Your task to perform on an android device: Open calendar and show me the fourth week of next month Image 0: 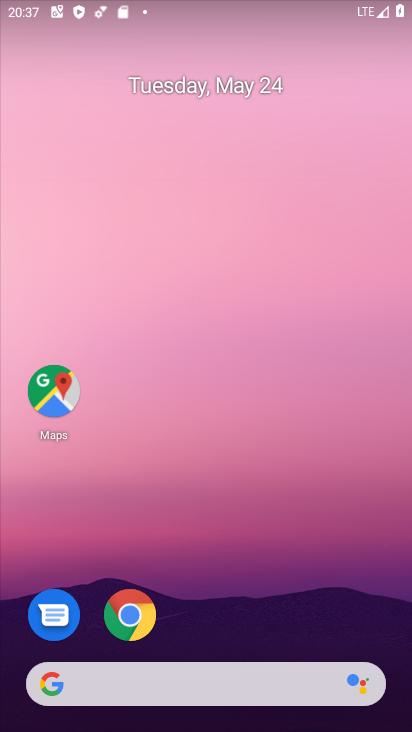
Step 0: drag from (215, 485) to (244, 219)
Your task to perform on an android device: Open calendar and show me the fourth week of next month Image 1: 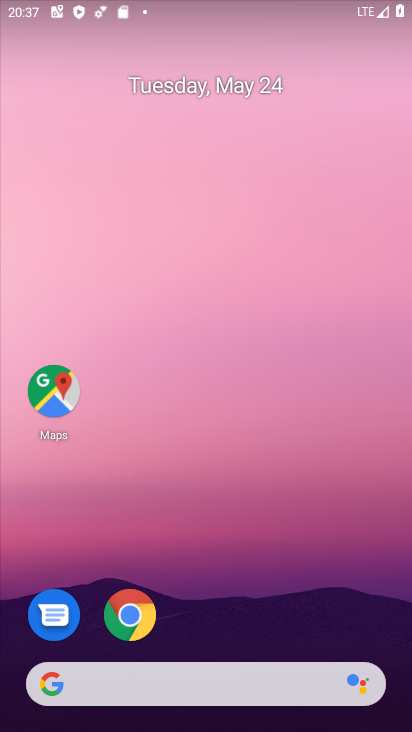
Step 1: drag from (223, 631) to (258, 292)
Your task to perform on an android device: Open calendar and show me the fourth week of next month Image 2: 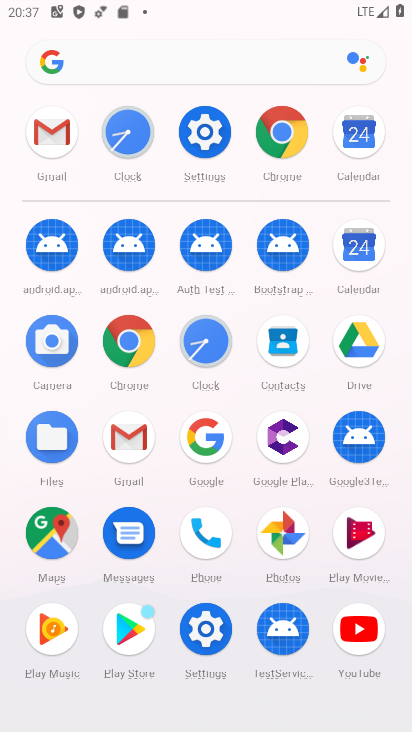
Step 2: click (368, 242)
Your task to perform on an android device: Open calendar and show me the fourth week of next month Image 3: 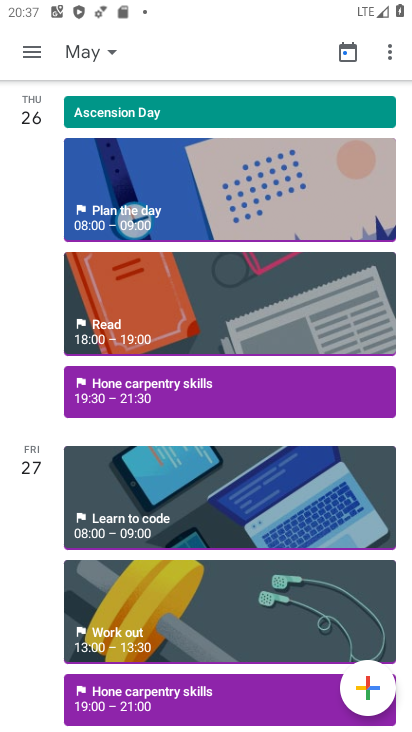
Step 3: click (25, 49)
Your task to perform on an android device: Open calendar and show me the fourth week of next month Image 4: 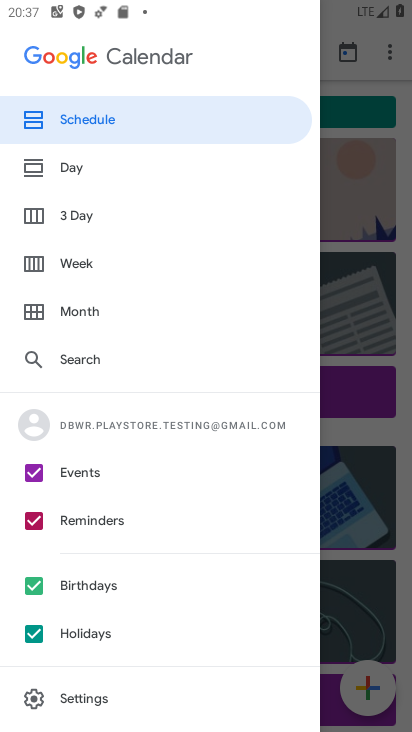
Step 4: click (79, 313)
Your task to perform on an android device: Open calendar and show me the fourth week of next month Image 5: 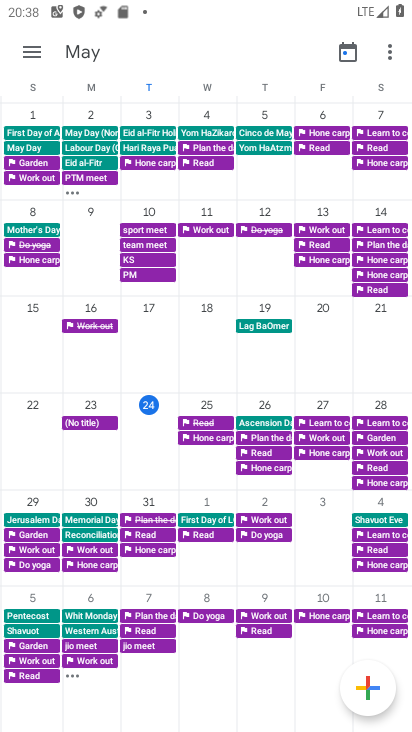
Step 5: task complete